Your task to perform on an android device: Go to eBay Image 0: 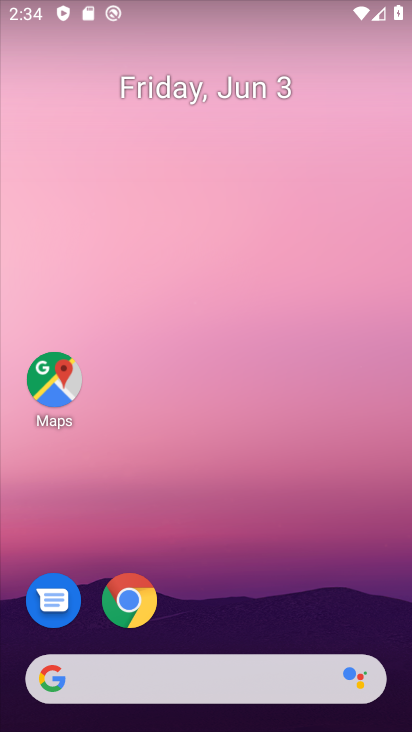
Step 0: click (146, 613)
Your task to perform on an android device: Go to eBay Image 1: 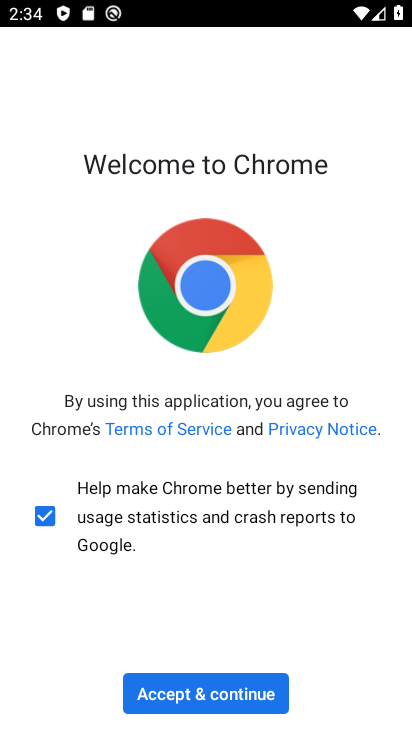
Step 1: click (199, 682)
Your task to perform on an android device: Go to eBay Image 2: 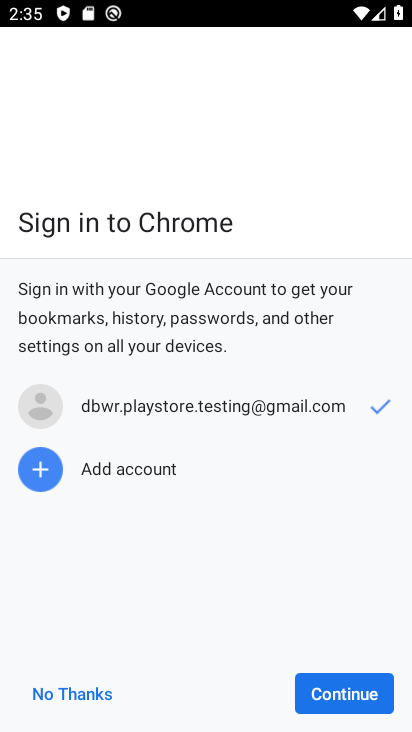
Step 2: click (340, 701)
Your task to perform on an android device: Go to eBay Image 3: 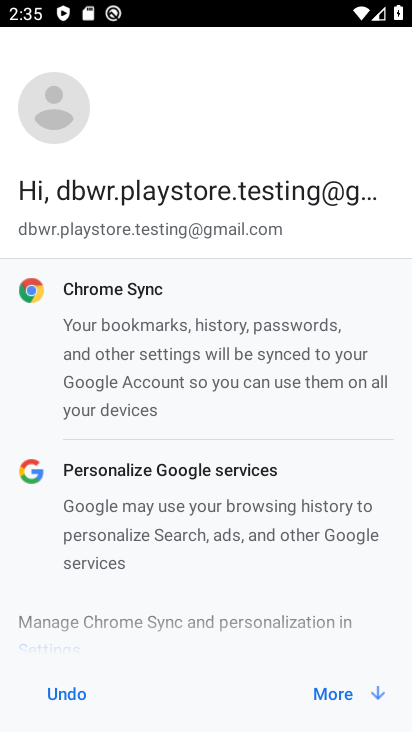
Step 3: click (341, 701)
Your task to perform on an android device: Go to eBay Image 4: 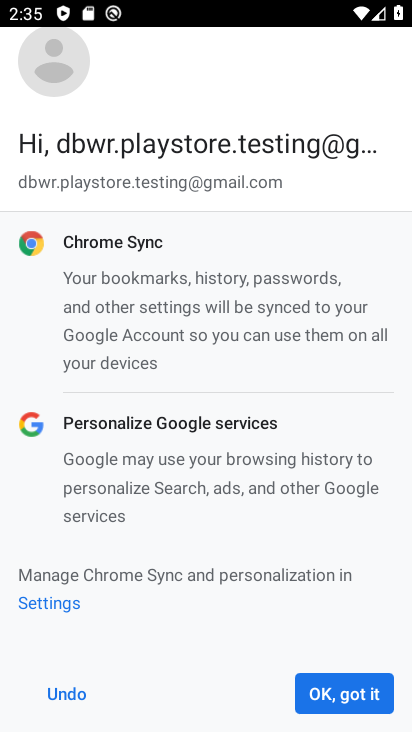
Step 4: click (340, 701)
Your task to perform on an android device: Go to eBay Image 5: 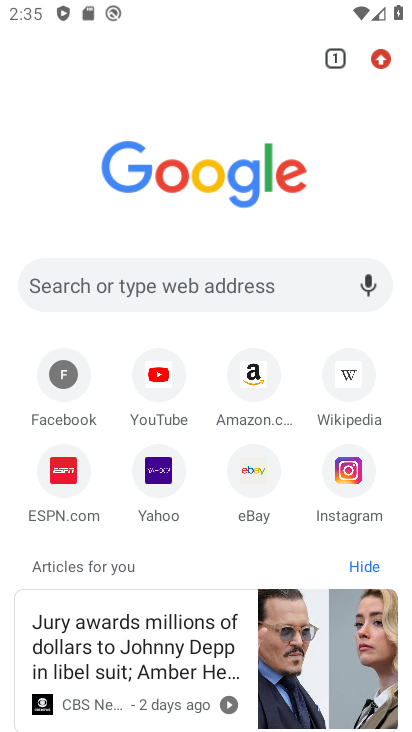
Step 5: click (250, 471)
Your task to perform on an android device: Go to eBay Image 6: 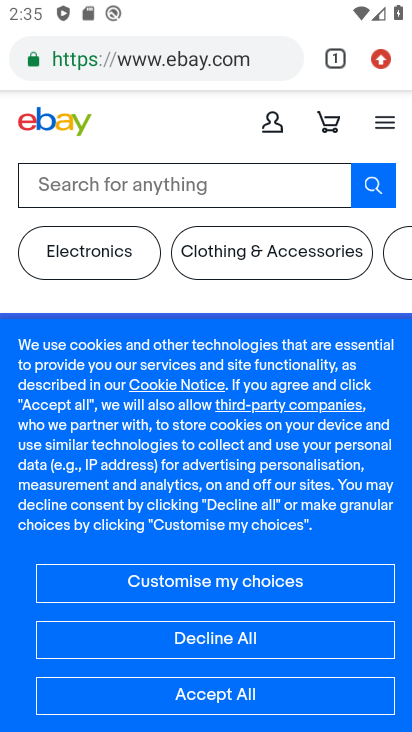
Step 6: task complete